Your task to perform on an android device: Open location settings Image 0: 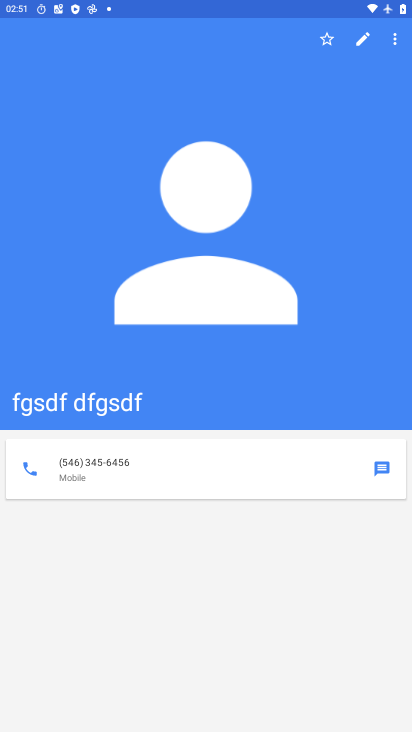
Step 0: press home button
Your task to perform on an android device: Open location settings Image 1: 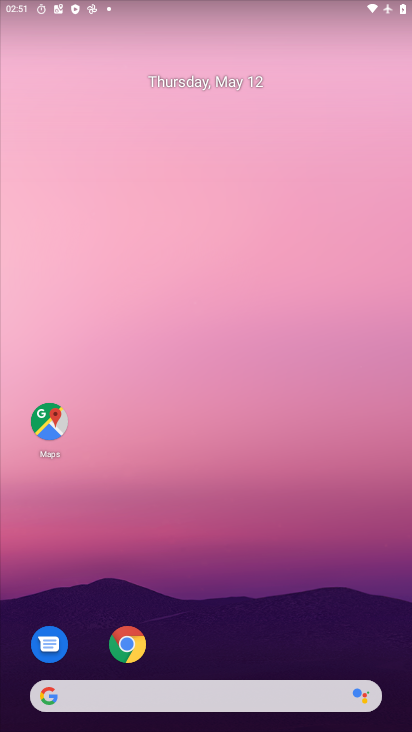
Step 1: drag from (275, 587) to (212, 76)
Your task to perform on an android device: Open location settings Image 2: 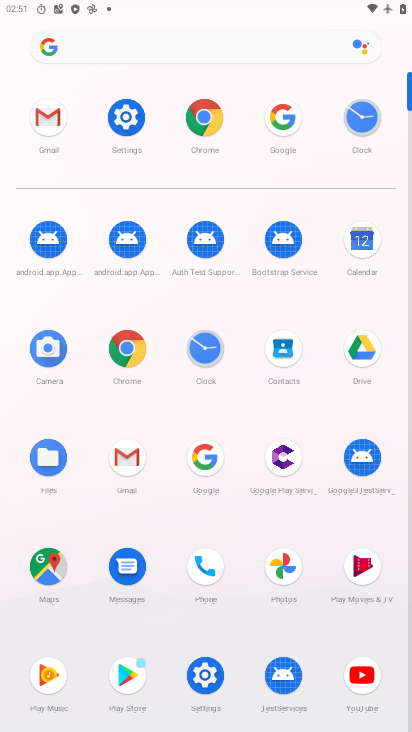
Step 2: click (129, 123)
Your task to perform on an android device: Open location settings Image 3: 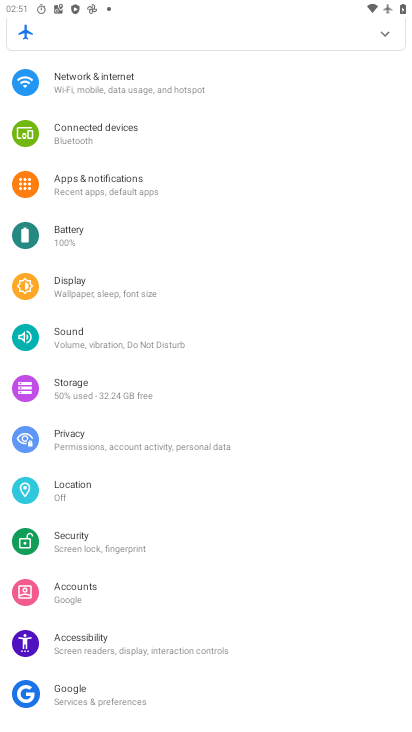
Step 3: click (135, 492)
Your task to perform on an android device: Open location settings Image 4: 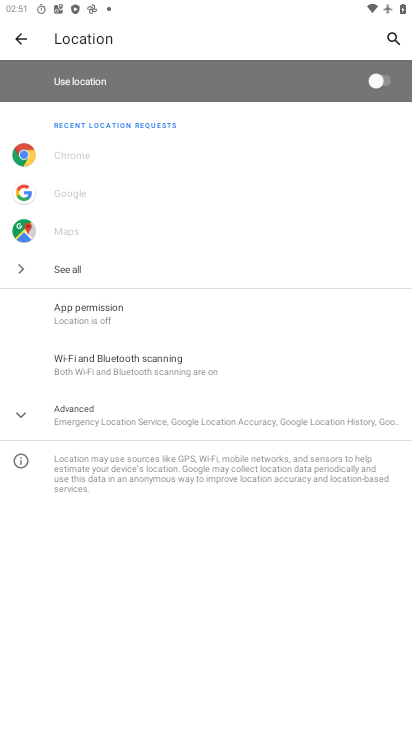
Step 4: task complete